Your task to perform on an android device: toggle translation in the chrome app Image 0: 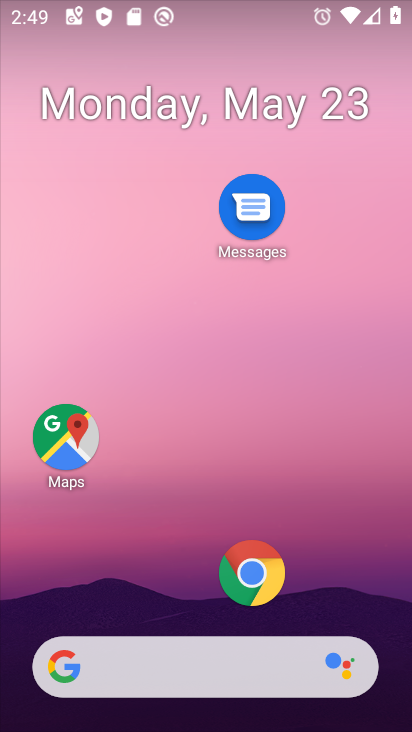
Step 0: drag from (291, 659) to (311, 460)
Your task to perform on an android device: toggle translation in the chrome app Image 1: 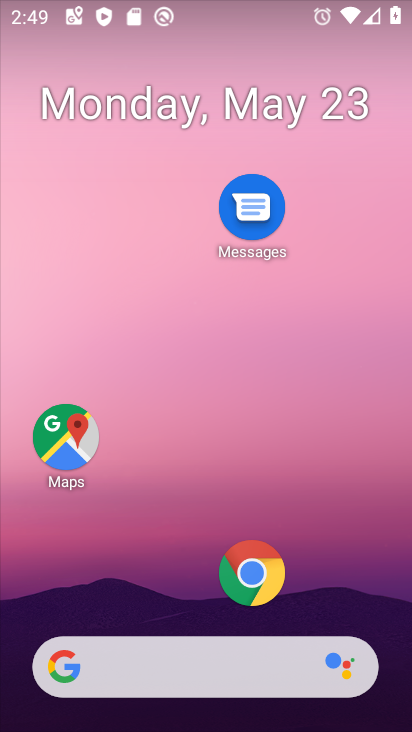
Step 1: drag from (215, 669) to (289, 97)
Your task to perform on an android device: toggle translation in the chrome app Image 2: 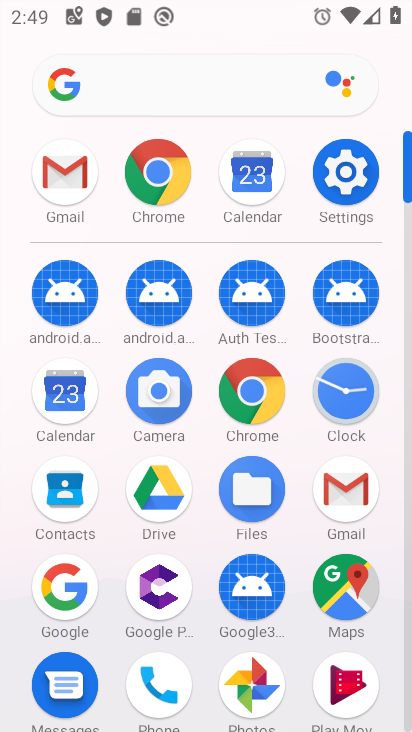
Step 2: click (257, 409)
Your task to perform on an android device: toggle translation in the chrome app Image 3: 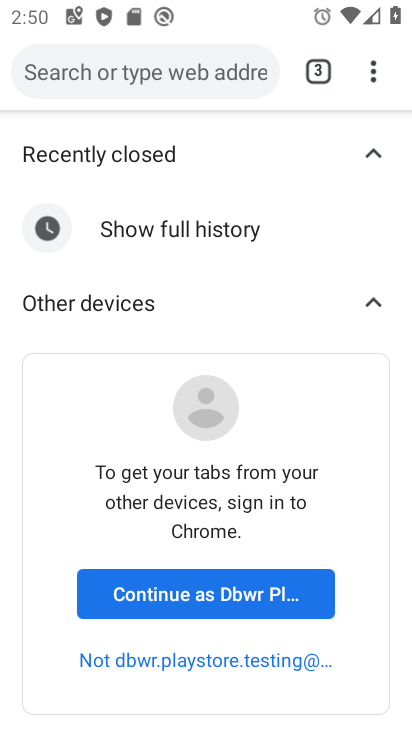
Step 3: click (382, 74)
Your task to perform on an android device: toggle translation in the chrome app Image 4: 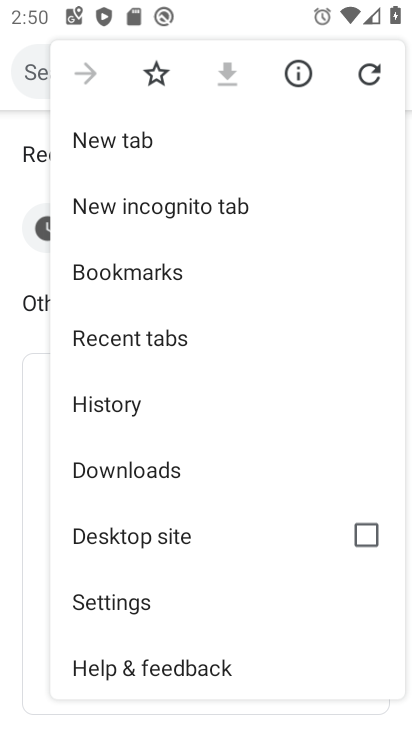
Step 4: click (153, 599)
Your task to perform on an android device: toggle translation in the chrome app Image 5: 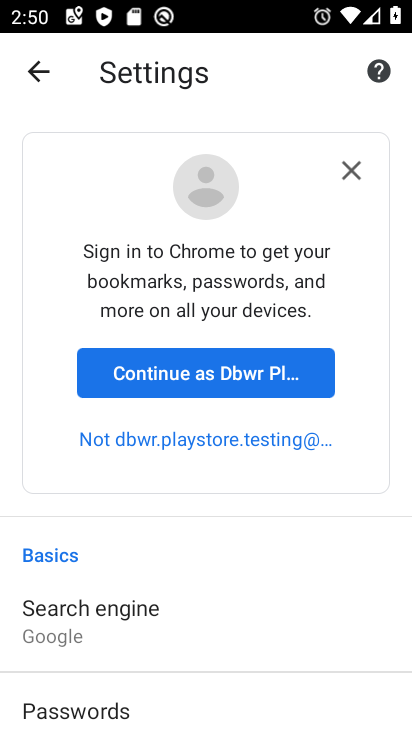
Step 5: drag from (139, 698) to (240, 182)
Your task to perform on an android device: toggle translation in the chrome app Image 6: 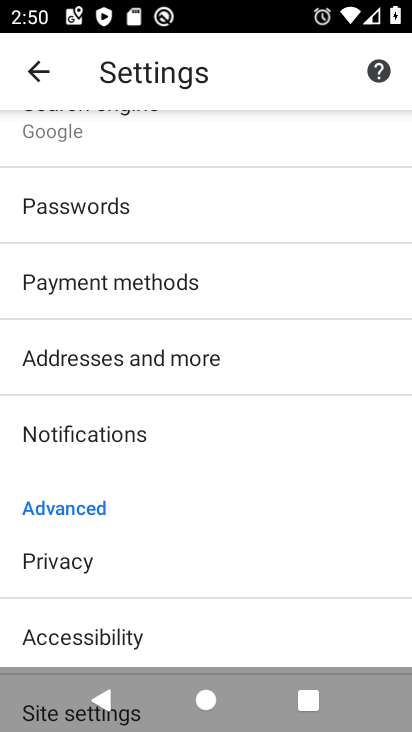
Step 6: drag from (250, 652) to (282, 442)
Your task to perform on an android device: toggle translation in the chrome app Image 7: 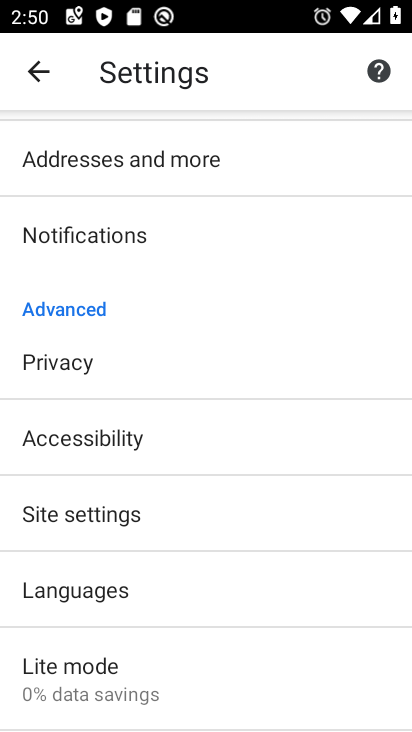
Step 7: click (108, 619)
Your task to perform on an android device: toggle translation in the chrome app Image 8: 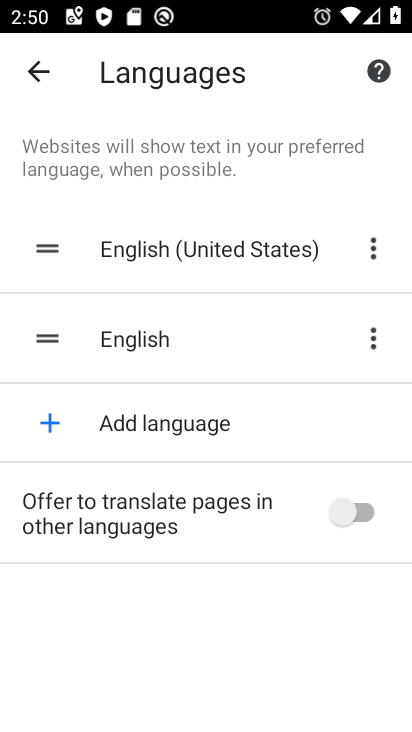
Step 8: click (359, 503)
Your task to perform on an android device: toggle translation in the chrome app Image 9: 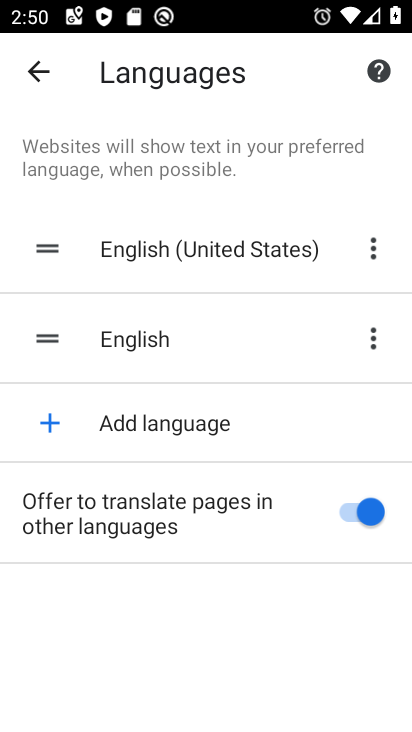
Step 9: task complete